Your task to perform on an android device: turn on showing notifications on the lock screen Image 0: 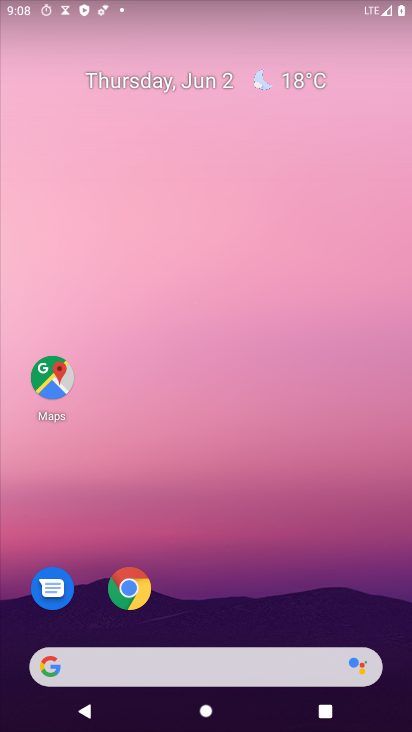
Step 0: drag from (210, 612) to (208, 85)
Your task to perform on an android device: turn on showing notifications on the lock screen Image 1: 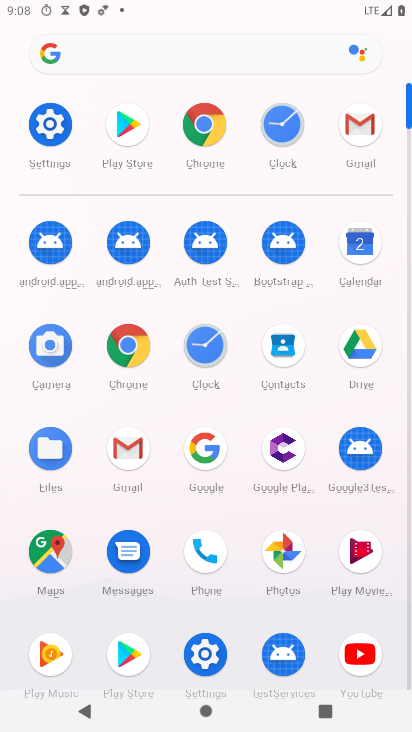
Step 1: click (46, 119)
Your task to perform on an android device: turn on showing notifications on the lock screen Image 2: 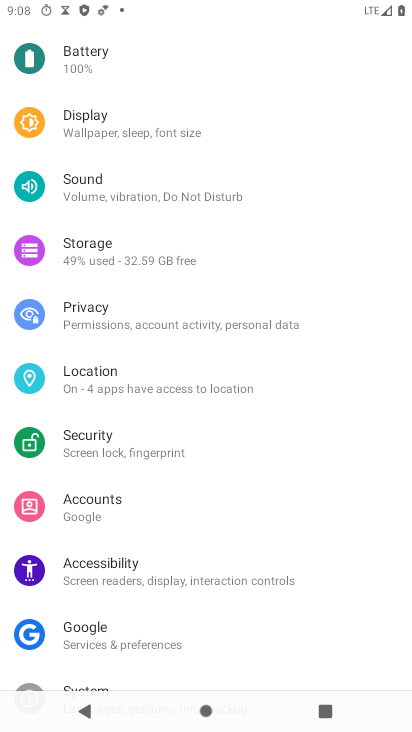
Step 2: drag from (213, 135) to (209, 642)
Your task to perform on an android device: turn on showing notifications on the lock screen Image 3: 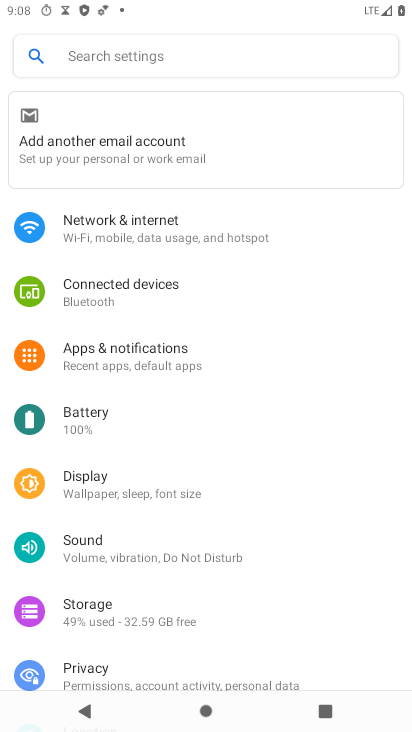
Step 3: click (126, 347)
Your task to perform on an android device: turn on showing notifications on the lock screen Image 4: 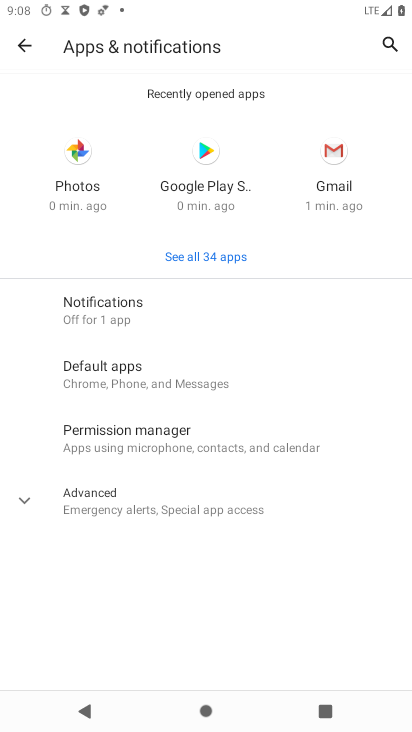
Step 4: click (137, 304)
Your task to perform on an android device: turn on showing notifications on the lock screen Image 5: 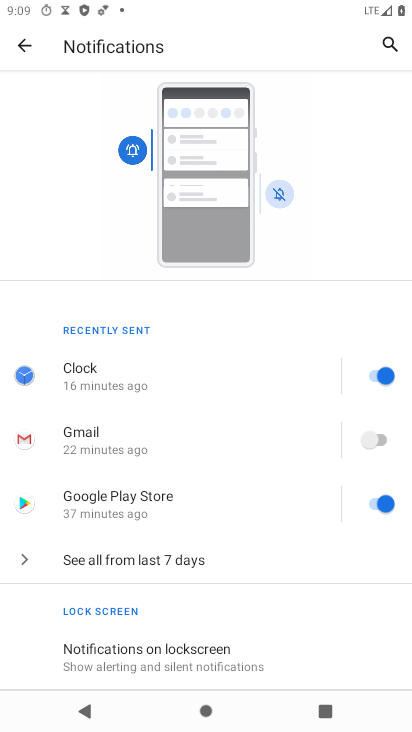
Step 5: click (161, 670)
Your task to perform on an android device: turn on showing notifications on the lock screen Image 6: 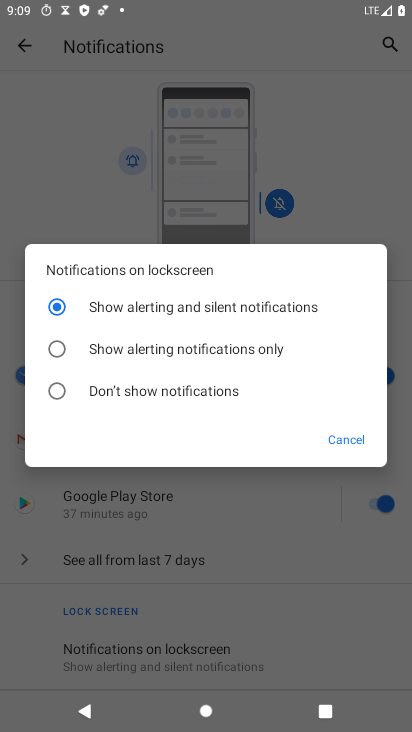
Step 6: click (80, 305)
Your task to perform on an android device: turn on showing notifications on the lock screen Image 7: 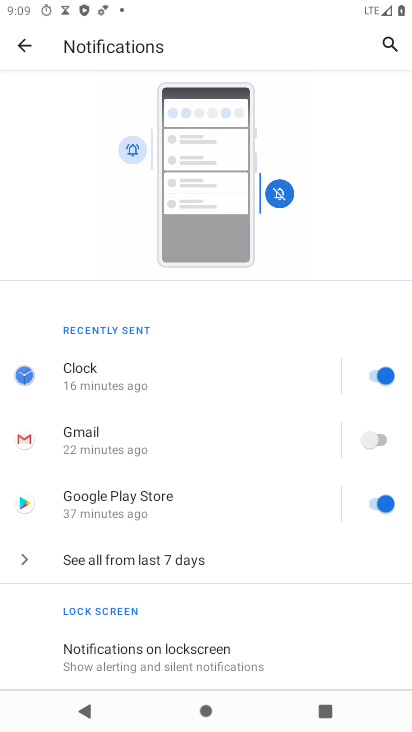
Step 7: task complete